Your task to perform on an android device: Open maps Image 0: 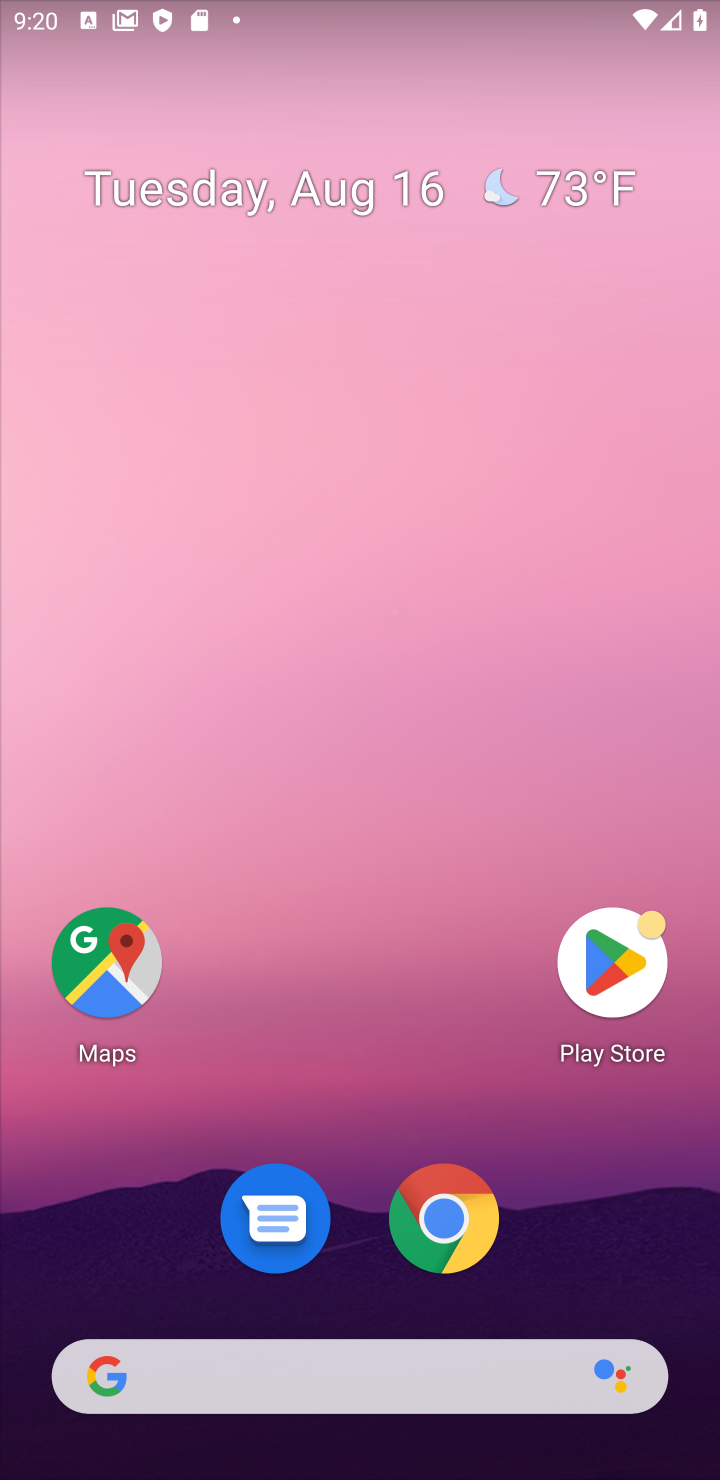
Step 0: click (58, 969)
Your task to perform on an android device: Open maps Image 1: 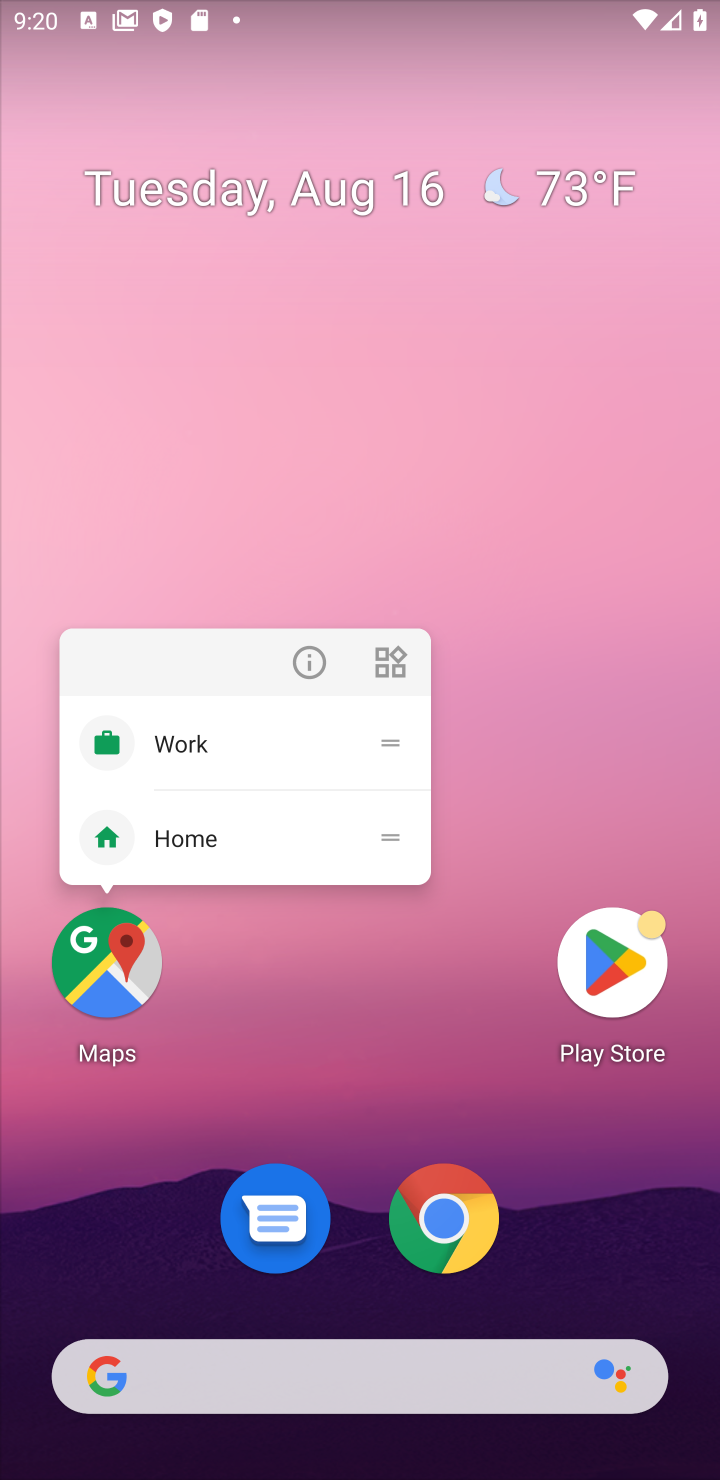
Step 1: click (87, 963)
Your task to perform on an android device: Open maps Image 2: 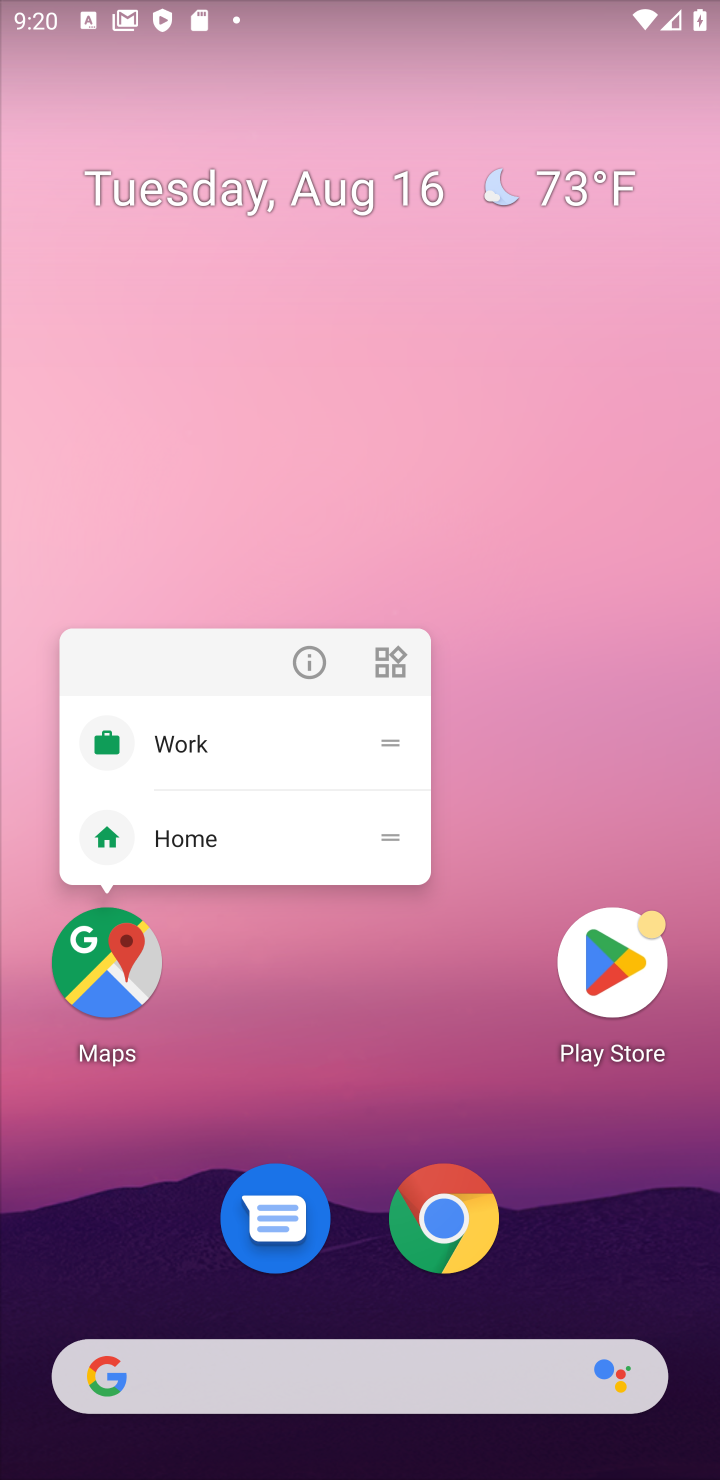
Step 2: click (87, 963)
Your task to perform on an android device: Open maps Image 3: 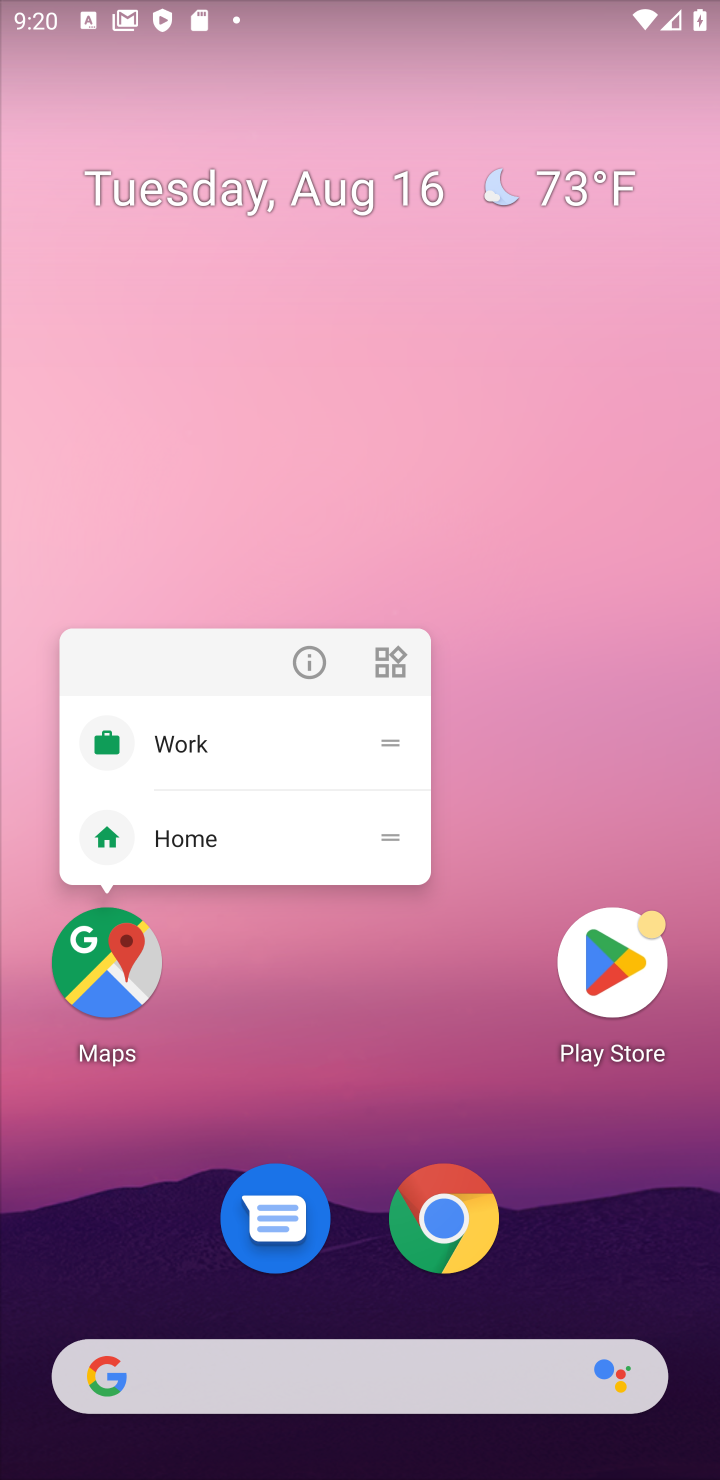
Step 3: click (87, 963)
Your task to perform on an android device: Open maps Image 4: 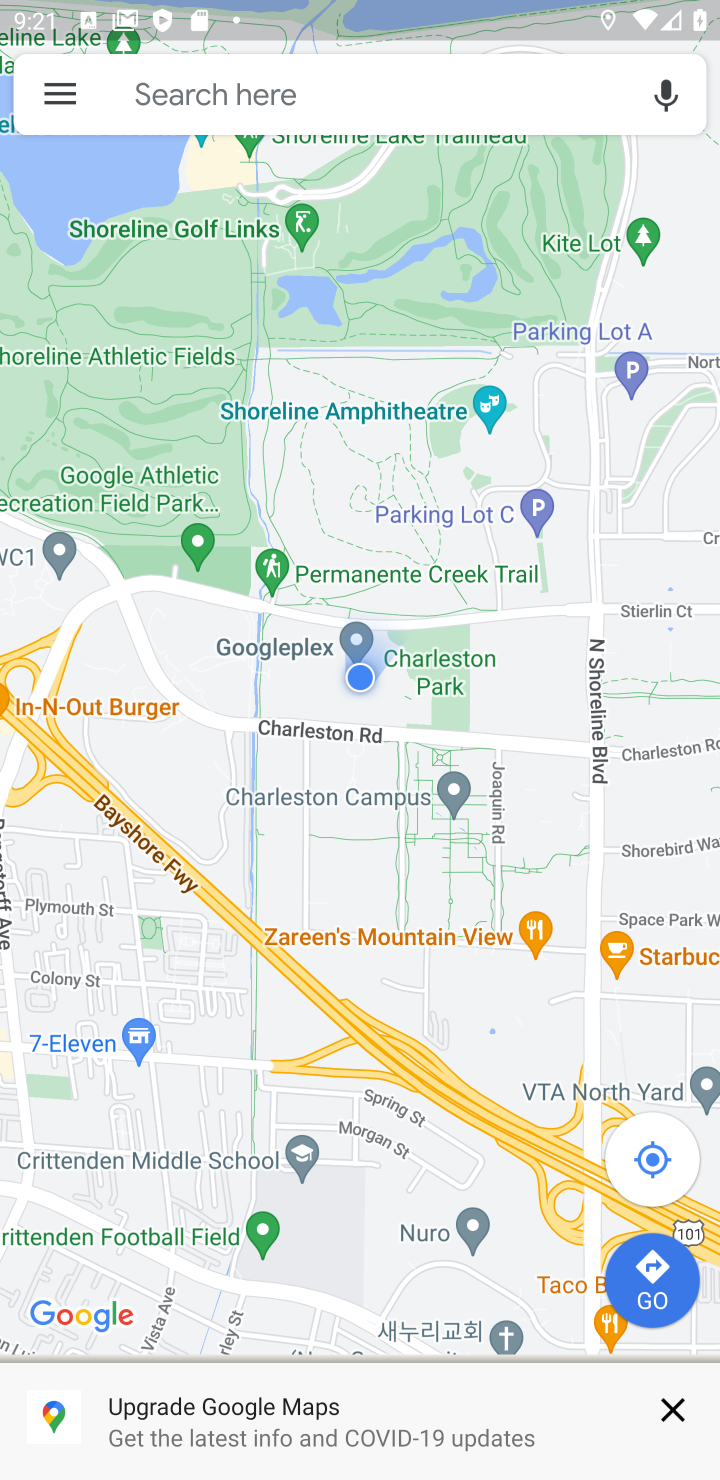
Step 4: task complete